Your task to perform on an android device: change notifications settings Image 0: 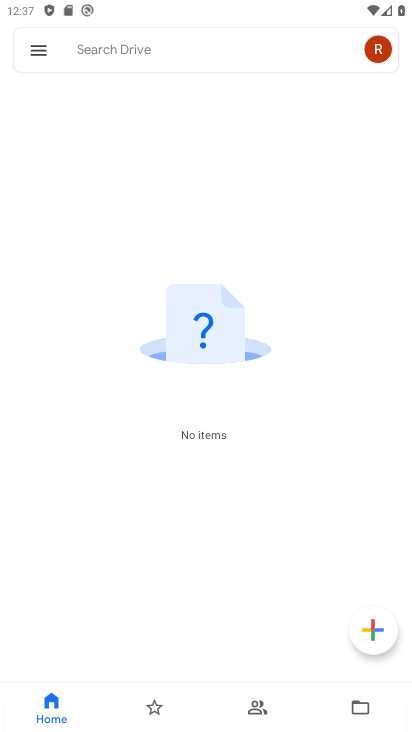
Step 0: press home button
Your task to perform on an android device: change notifications settings Image 1: 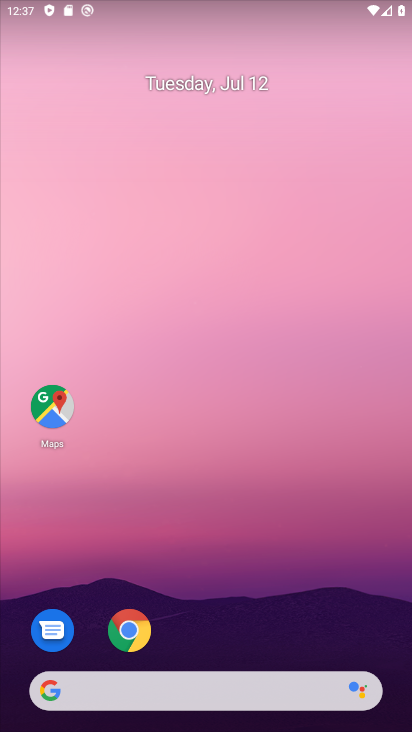
Step 1: drag from (379, 629) to (329, 40)
Your task to perform on an android device: change notifications settings Image 2: 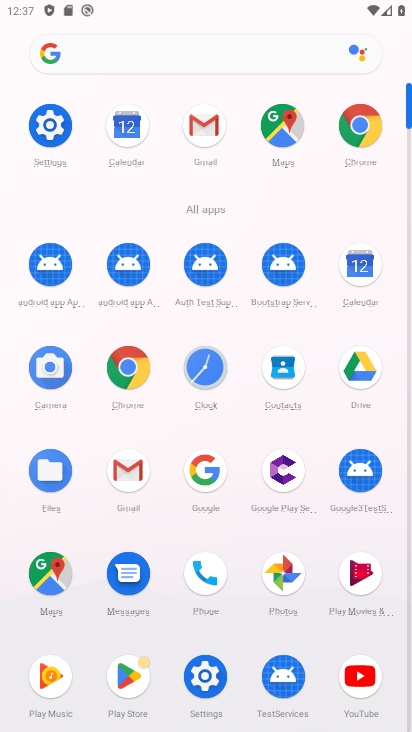
Step 2: click (210, 676)
Your task to perform on an android device: change notifications settings Image 3: 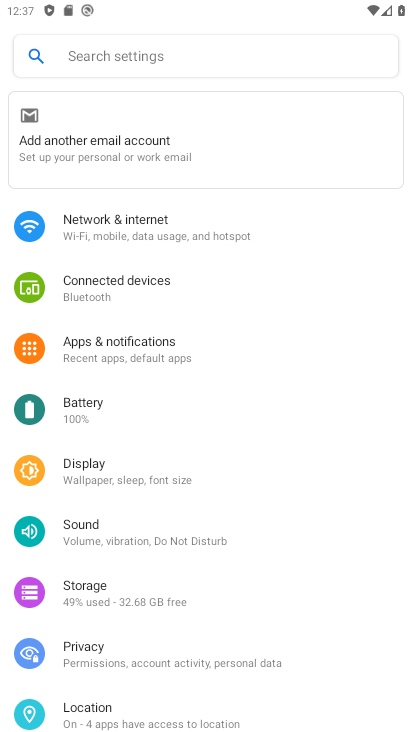
Step 3: click (101, 342)
Your task to perform on an android device: change notifications settings Image 4: 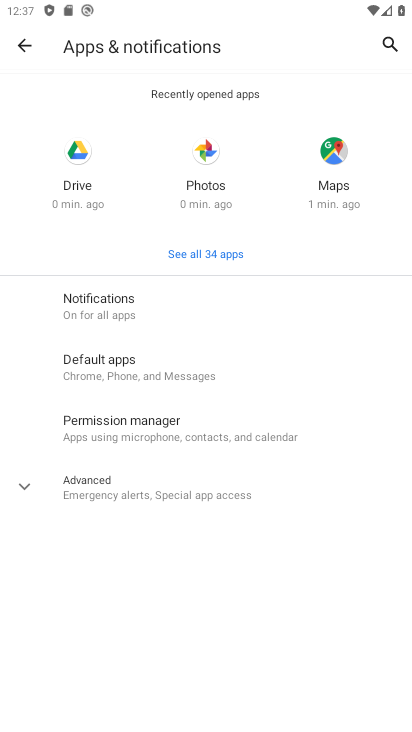
Step 4: click (87, 302)
Your task to perform on an android device: change notifications settings Image 5: 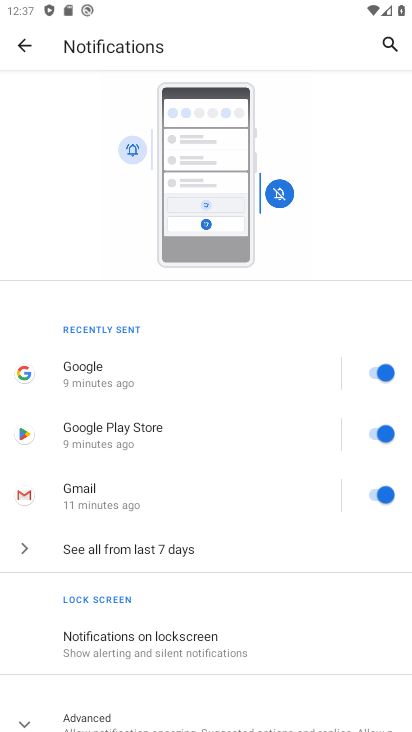
Step 5: drag from (248, 637) to (258, 191)
Your task to perform on an android device: change notifications settings Image 6: 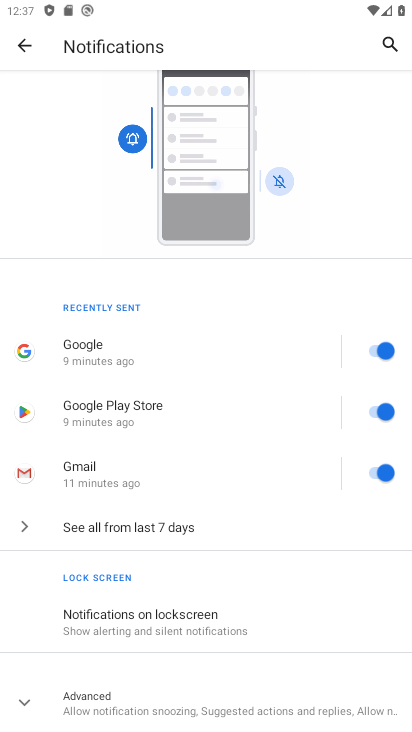
Step 6: click (25, 695)
Your task to perform on an android device: change notifications settings Image 7: 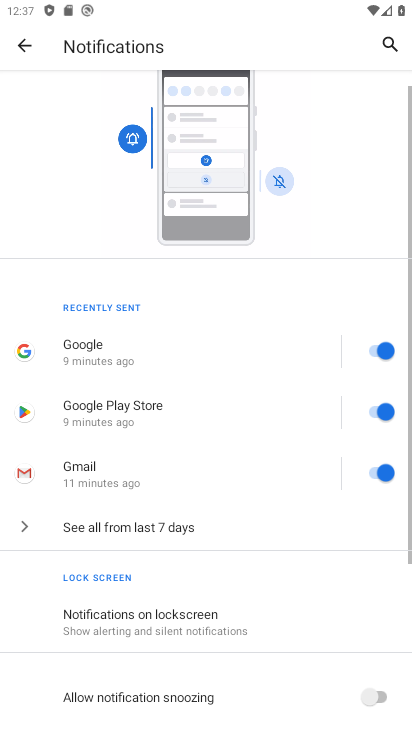
Step 7: drag from (231, 683) to (206, 319)
Your task to perform on an android device: change notifications settings Image 8: 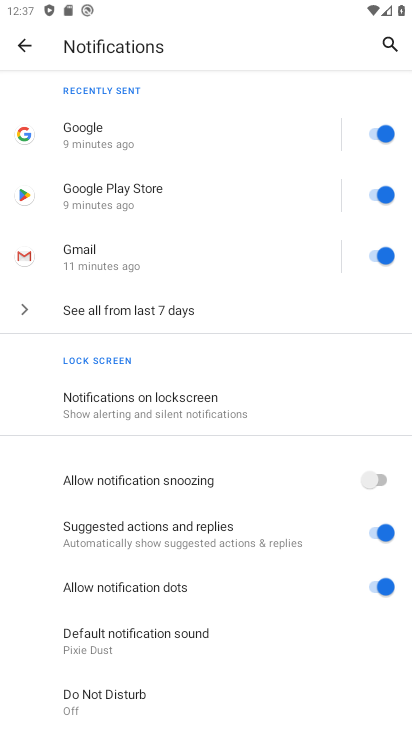
Step 8: click (373, 580)
Your task to perform on an android device: change notifications settings Image 9: 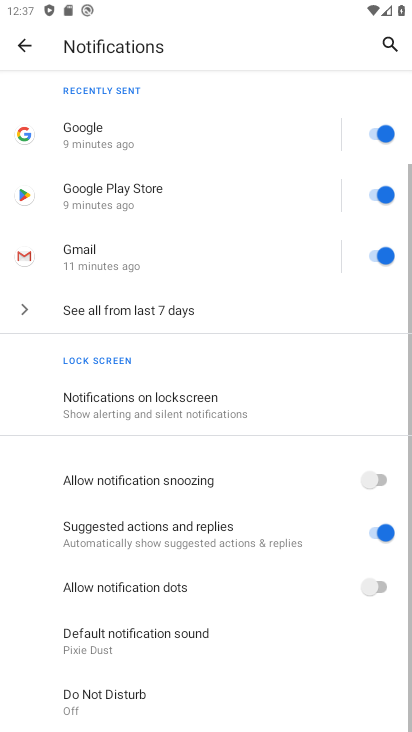
Step 9: click (381, 479)
Your task to perform on an android device: change notifications settings Image 10: 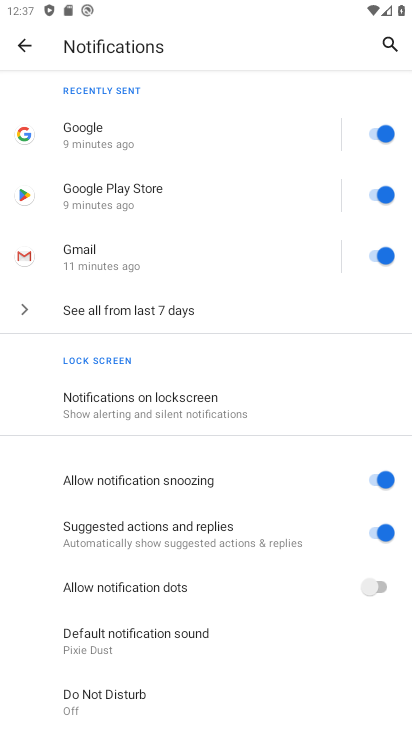
Step 10: task complete